Your task to perform on an android device: When is my next meeting? Image 0: 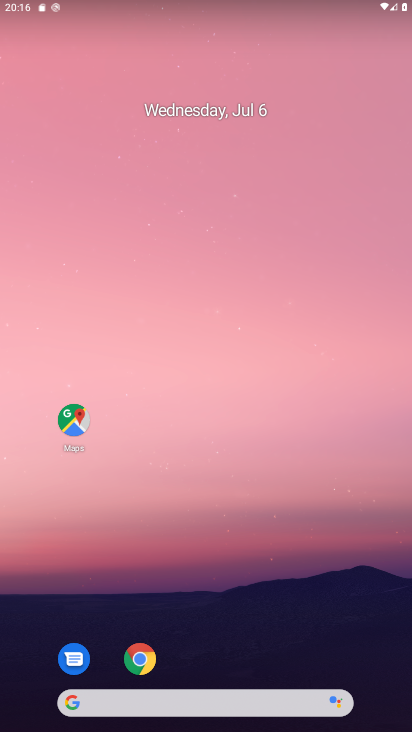
Step 0: click (187, 121)
Your task to perform on an android device: When is my next meeting? Image 1: 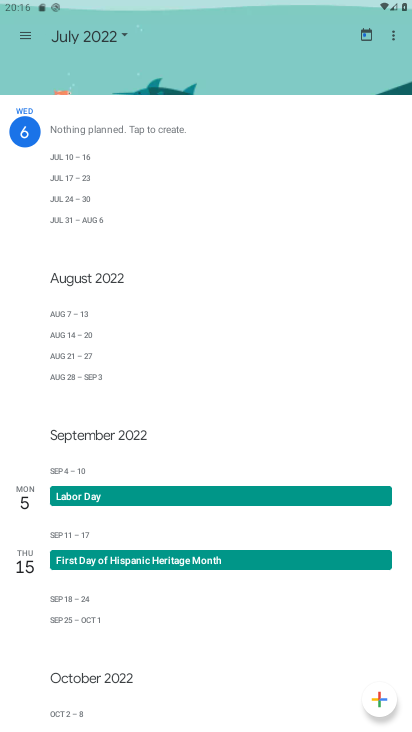
Step 1: click (90, 40)
Your task to perform on an android device: When is my next meeting? Image 2: 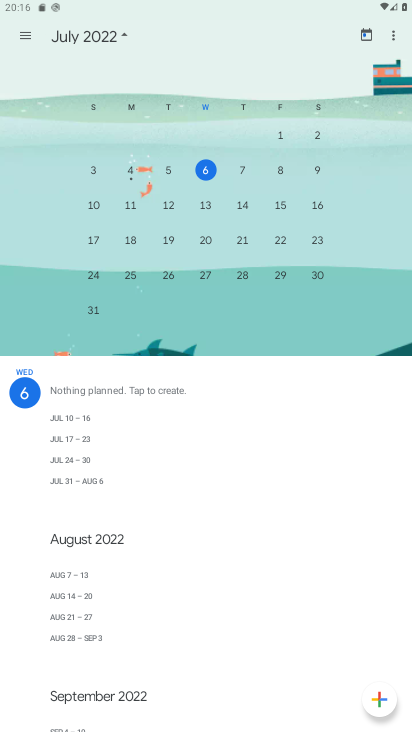
Step 2: click (24, 36)
Your task to perform on an android device: When is my next meeting? Image 3: 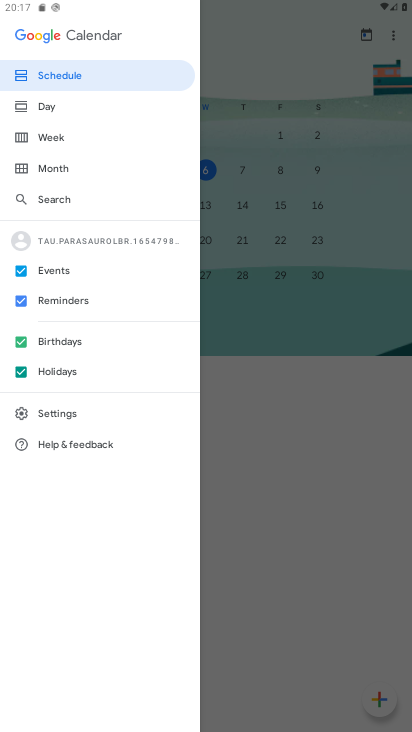
Step 3: click (22, 335)
Your task to perform on an android device: When is my next meeting? Image 4: 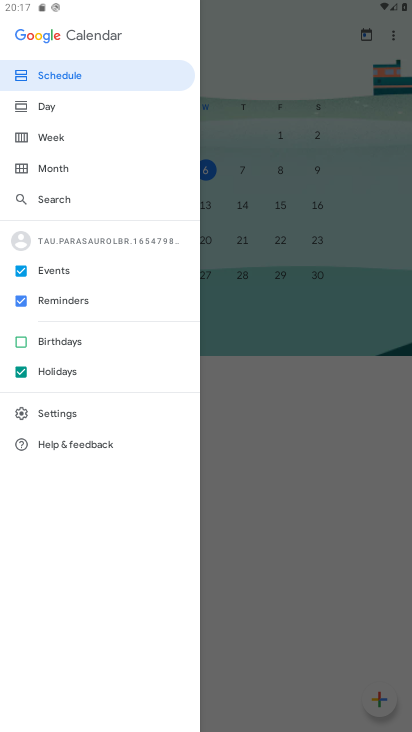
Step 4: click (20, 376)
Your task to perform on an android device: When is my next meeting? Image 5: 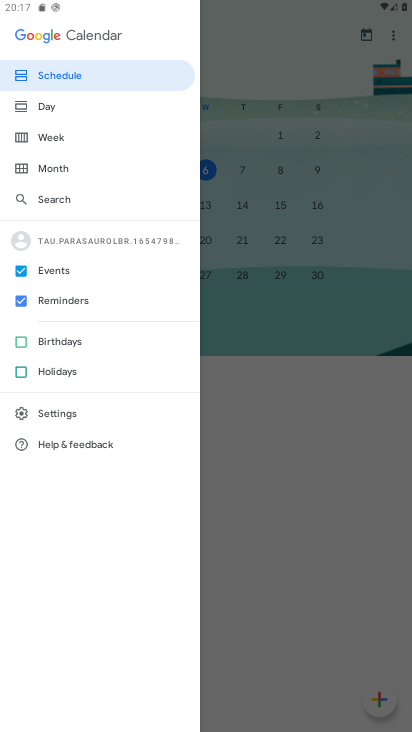
Step 5: click (333, 356)
Your task to perform on an android device: When is my next meeting? Image 6: 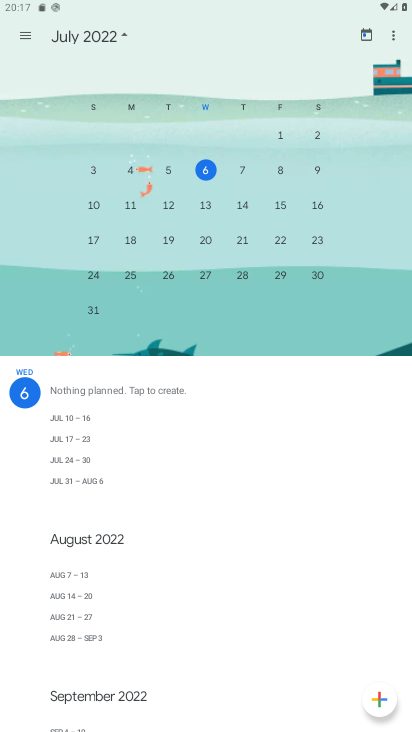
Step 6: click (25, 30)
Your task to perform on an android device: When is my next meeting? Image 7: 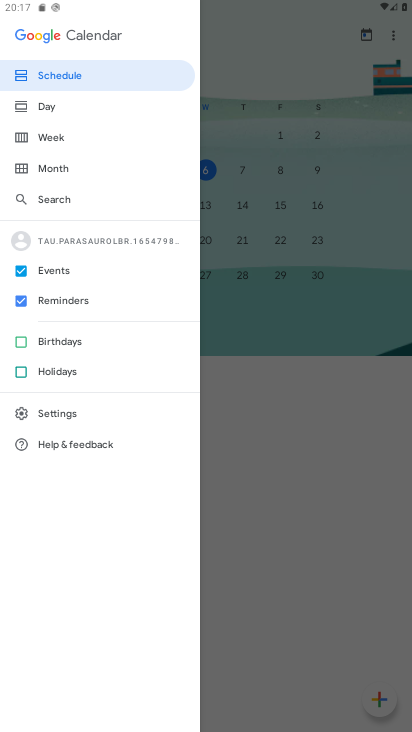
Step 7: click (71, 95)
Your task to perform on an android device: When is my next meeting? Image 8: 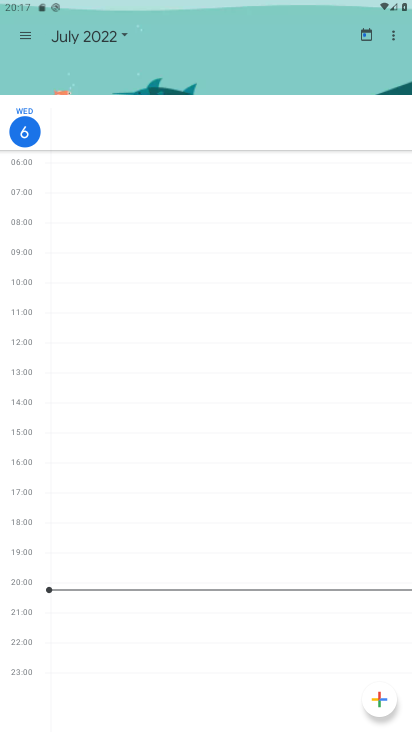
Step 8: click (29, 36)
Your task to perform on an android device: When is my next meeting? Image 9: 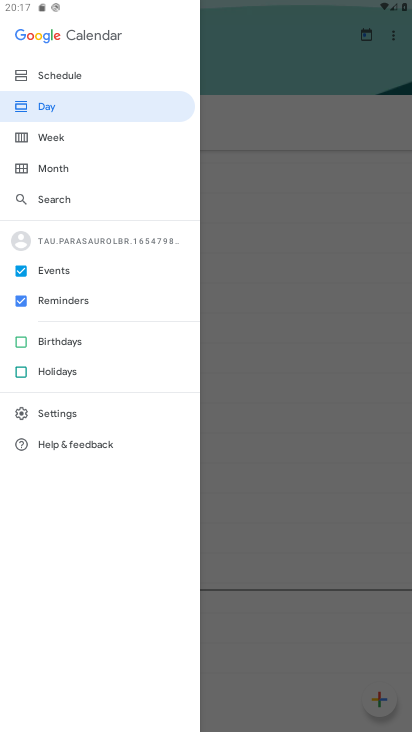
Step 9: click (72, 87)
Your task to perform on an android device: When is my next meeting? Image 10: 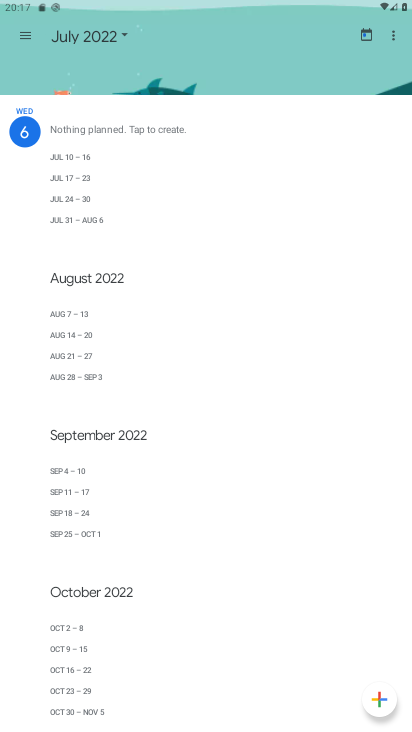
Step 10: task complete